Your task to perform on an android device: Turn on the flashlight Image 0: 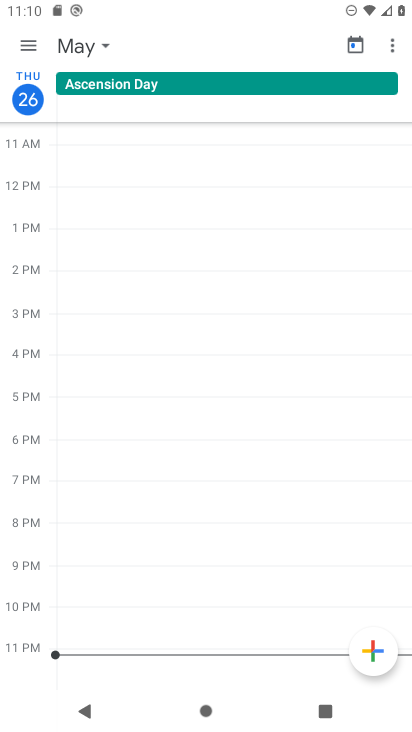
Step 0: press home button
Your task to perform on an android device: Turn on the flashlight Image 1: 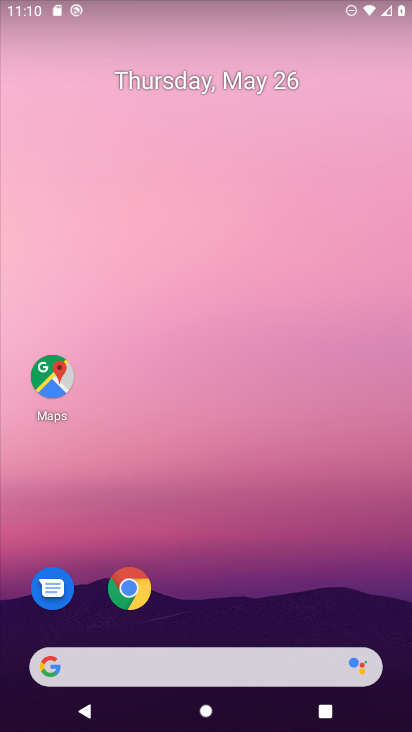
Step 1: drag from (224, 11) to (264, 437)
Your task to perform on an android device: Turn on the flashlight Image 2: 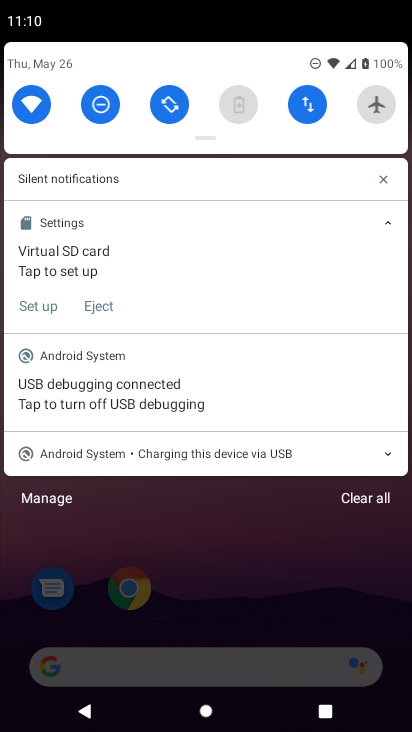
Step 2: drag from (207, 142) to (215, 397)
Your task to perform on an android device: Turn on the flashlight Image 3: 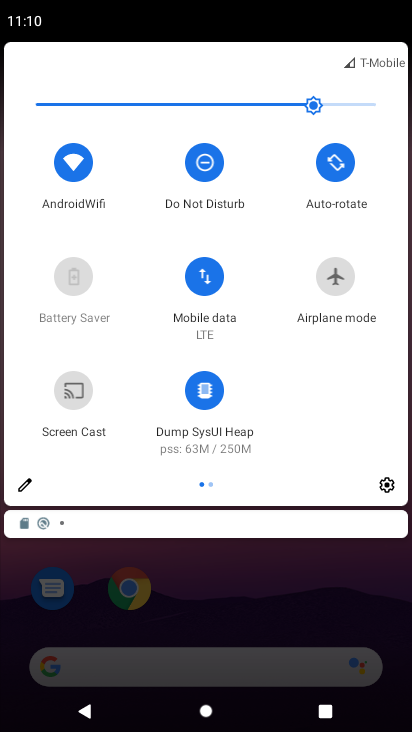
Step 3: click (25, 481)
Your task to perform on an android device: Turn on the flashlight Image 4: 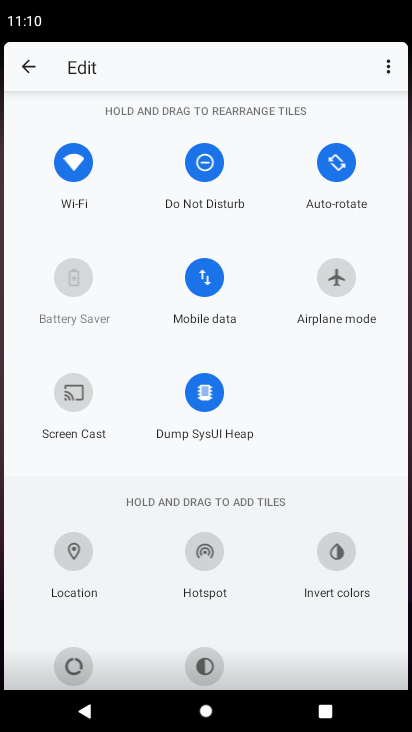
Step 4: task complete